Your task to perform on an android device: toggle notification dots Image 0: 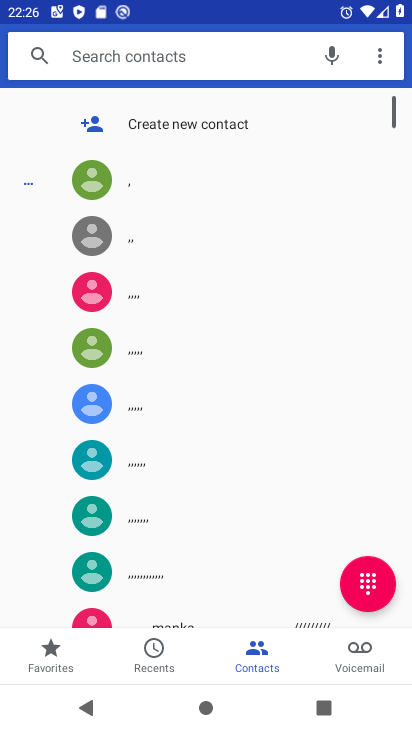
Step 0: press home button
Your task to perform on an android device: toggle notification dots Image 1: 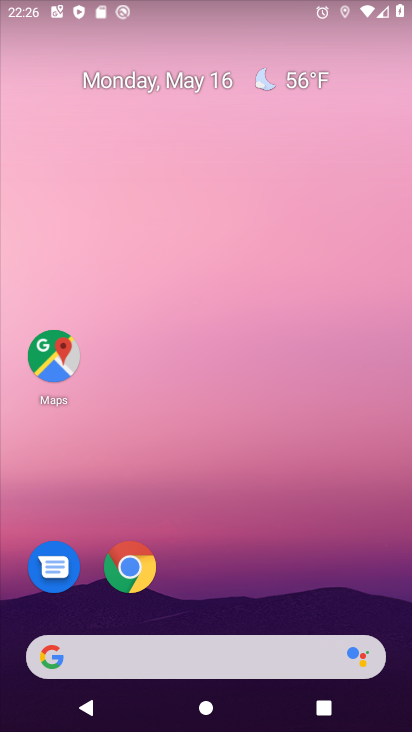
Step 1: drag from (226, 579) to (219, 204)
Your task to perform on an android device: toggle notification dots Image 2: 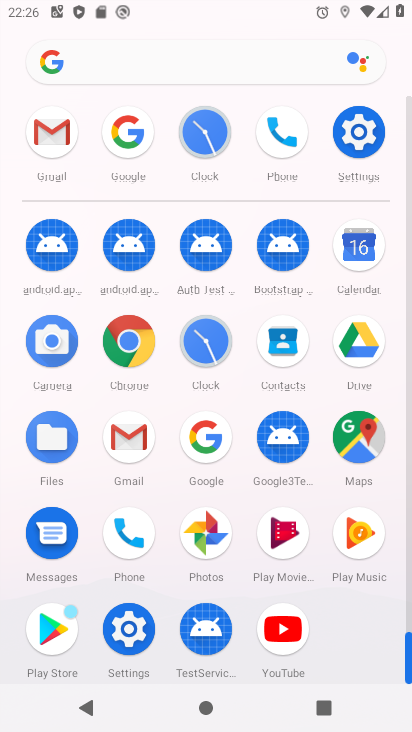
Step 2: click (356, 130)
Your task to perform on an android device: toggle notification dots Image 3: 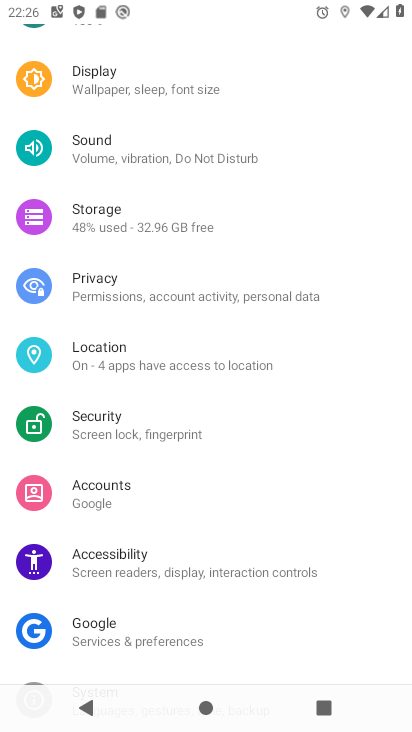
Step 3: drag from (148, 117) to (136, 561)
Your task to perform on an android device: toggle notification dots Image 4: 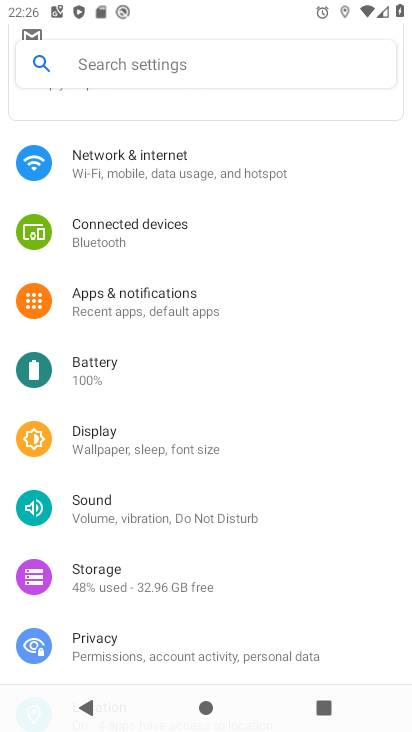
Step 4: click (184, 58)
Your task to perform on an android device: toggle notification dots Image 5: 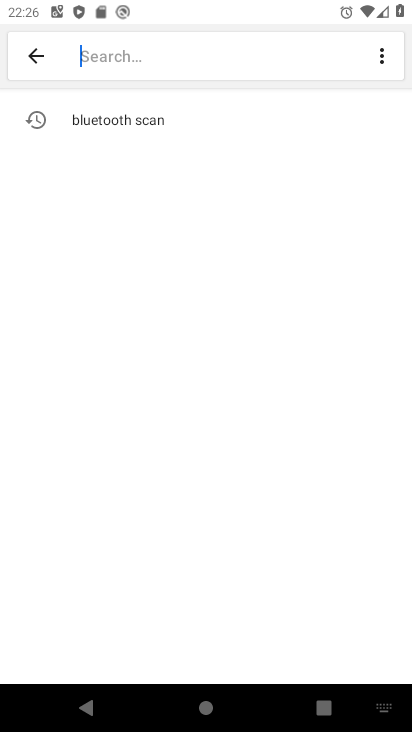
Step 5: click (168, 56)
Your task to perform on an android device: toggle notification dots Image 6: 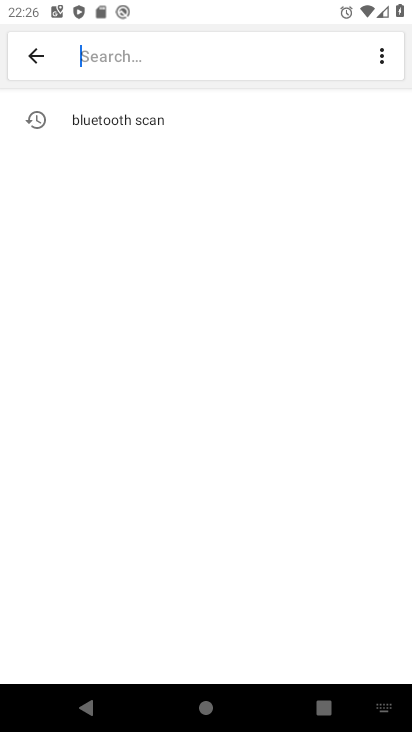
Step 6: type " notification dots"
Your task to perform on an android device: toggle notification dots Image 7: 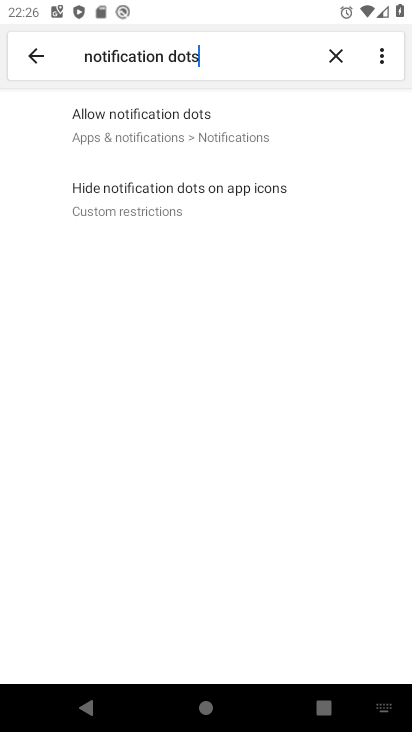
Step 7: click (239, 128)
Your task to perform on an android device: toggle notification dots Image 8: 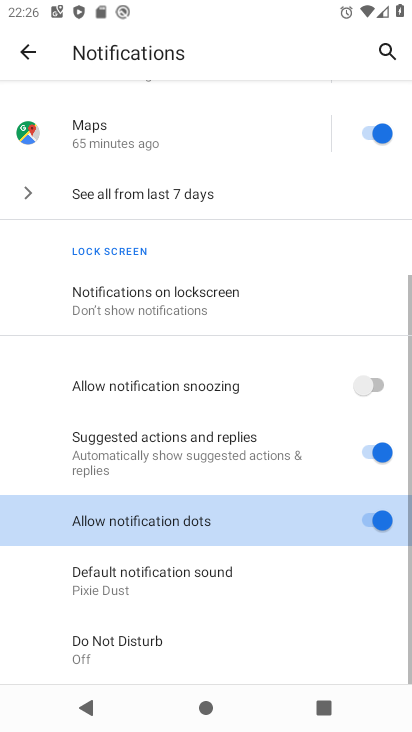
Step 8: click (370, 521)
Your task to perform on an android device: toggle notification dots Image 9: 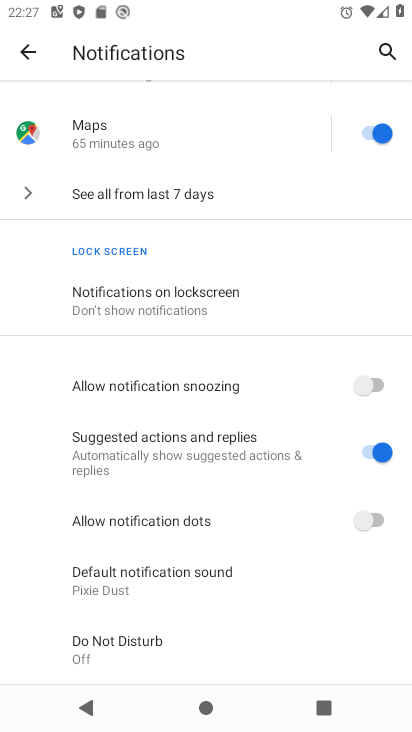
Step 9: task complete